Your task to perform on an android device: add a contact Image 0: 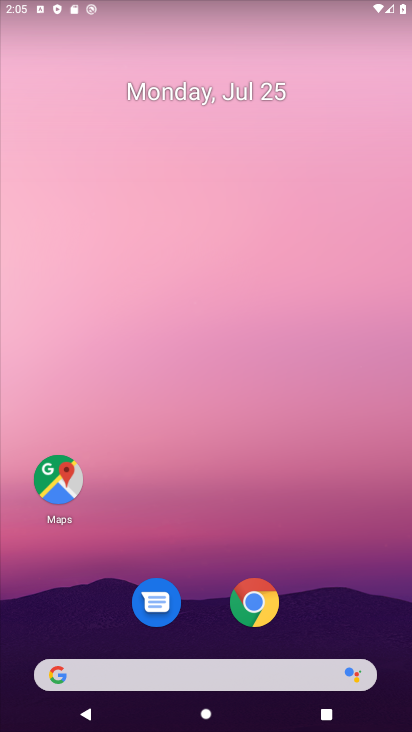
Step 0: press enter
Your task to perform on an android device: add a contact Image 1: 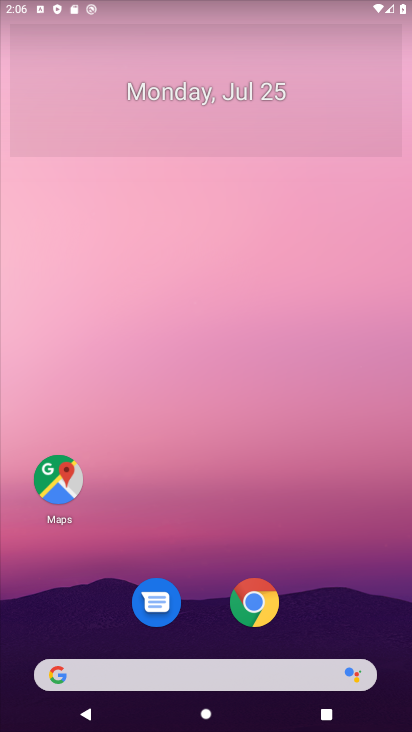
Step 1: drag from (280, 522) to (254, 174)
Your task to perform on an android device: add a contact Image 2: 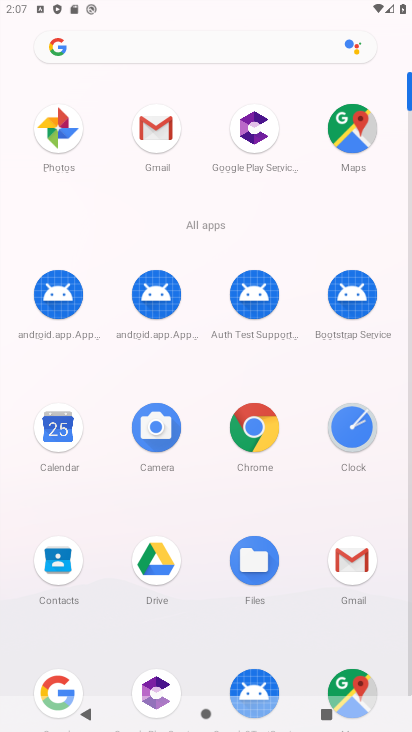
Step 2: drag from (283, 517) to (305, 221)
Your task to perform on an android device: add a contact Image 3: 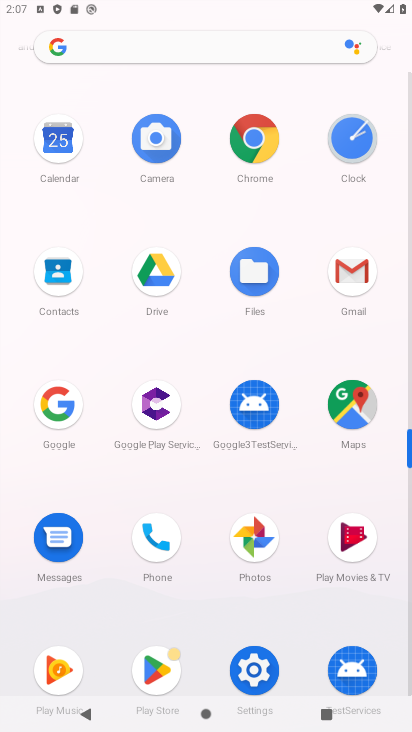
Step 3: click (59, 272)
Your task to perform on an android device: add a contact Image 4: 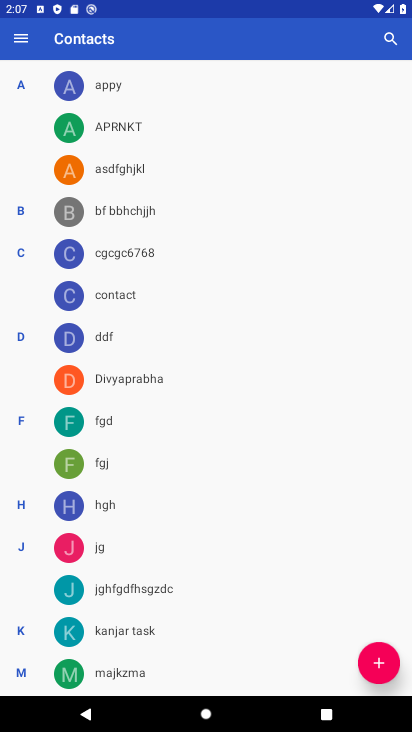
Step 4: click (384, 650)
Your task to perform on an android device: add a contact Image 5: 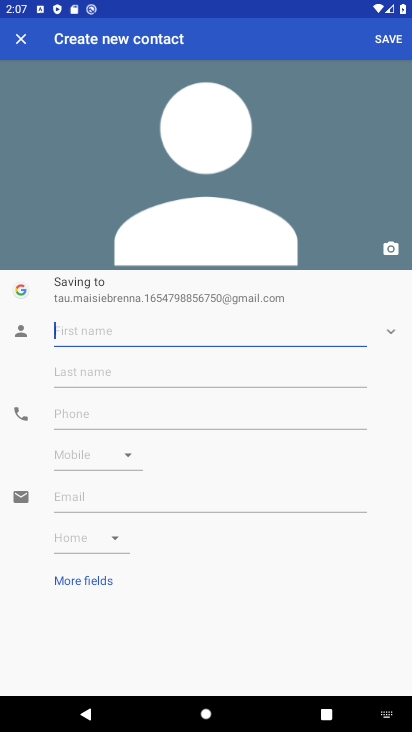
Step 5: type "assd"
Your task to perform on an android device: add a contact Image 6: 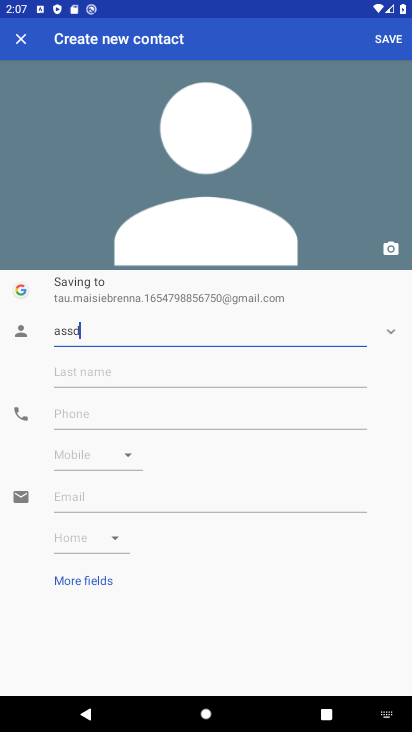
Step 6: click (202, 410)
Your task to perform on an android device: add a contact Image 7: 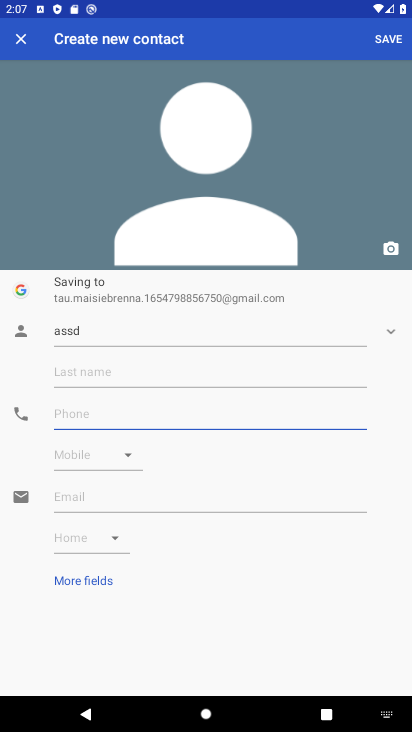
Step 7: type "87564565"
Your task to perform on an android device: add a contact Image 8: 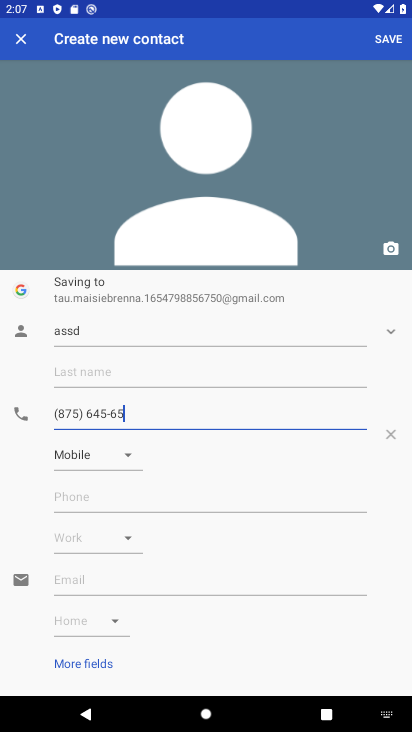
Step 8: click (396, 34)
Your task to perform on an android device: add a contact Image 9: 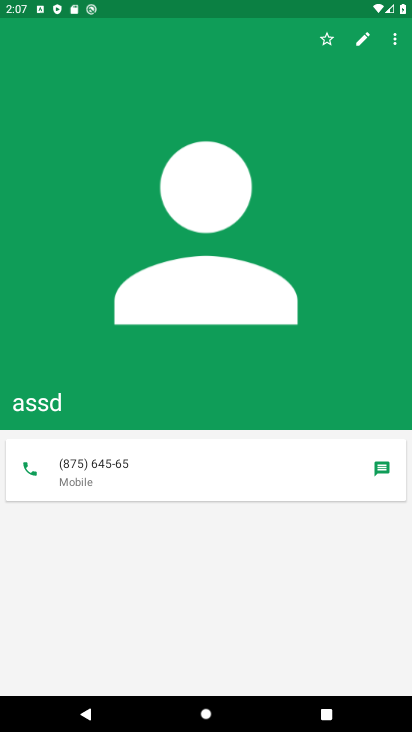
Step 9: task complete